Your task to perform on an android device: Search for sushi restaurants on Maps Image 0: 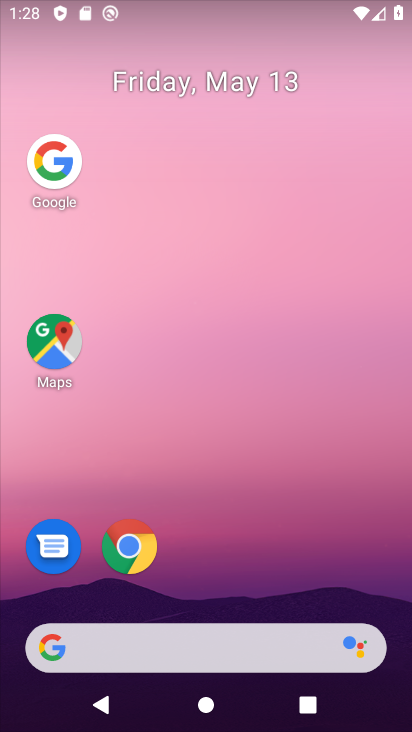
Step 0: click (40, 350)
Your task to perform on an android device: Search for sushi restaurants on Maps Image 1: 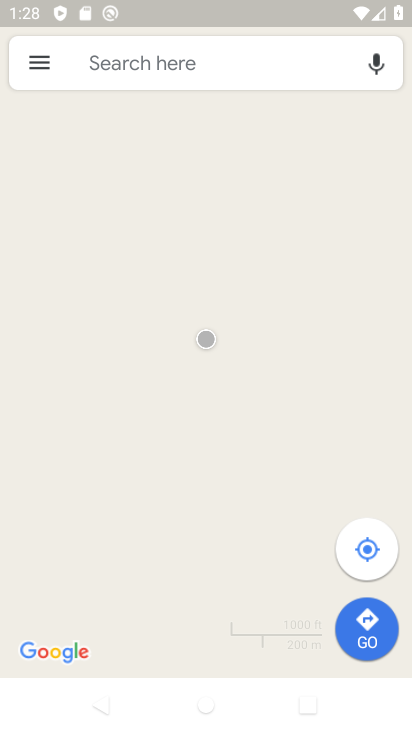
Step 1: click (247, 69)
Your task to perform on an android device: Search for sushi restaurants on Maps Image 2: 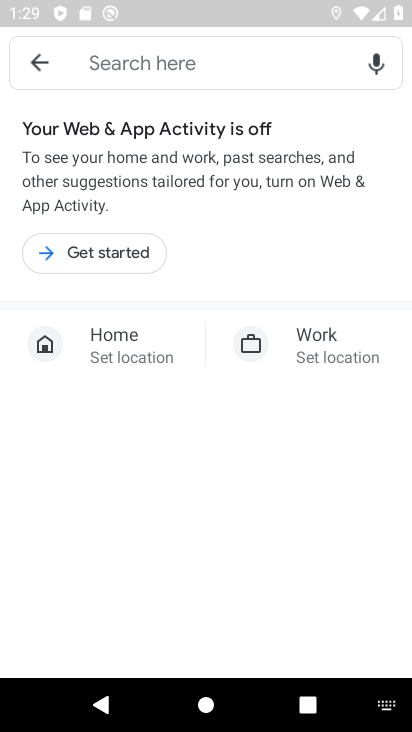
Step 2: type "sushi restaurants"
Your task to perform on an android device: Search for sushi restaurants on Maps Image 3: 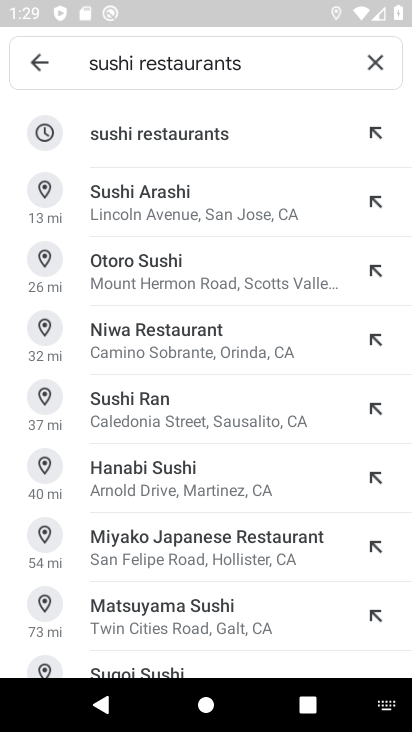
Step 3: task complete